Your task to perform on an android device: Open my contact list Image 0: 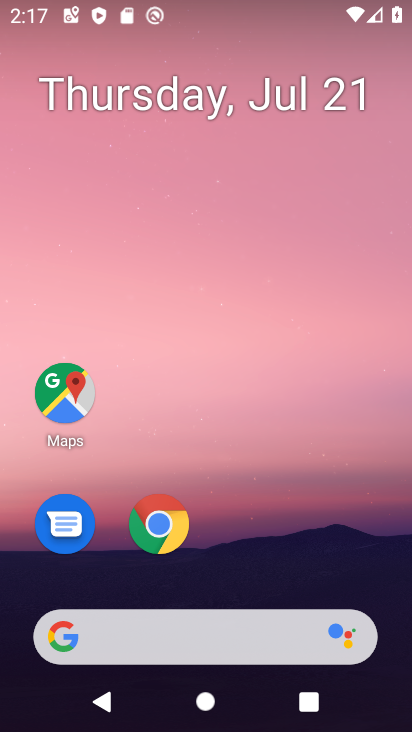
Step 0: drag from (294, 518) to (288, 34)
Your task to perform on an android device: Open my contact list Image 1: 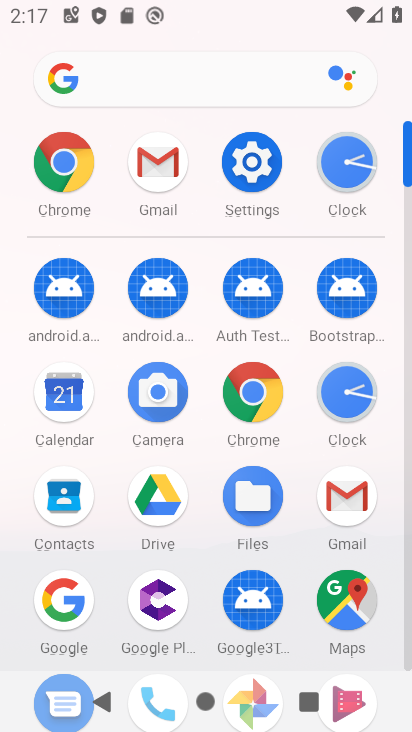
Step 1: click (56, 488)
Your task to perform on an android device: Open my contact list Image 2: 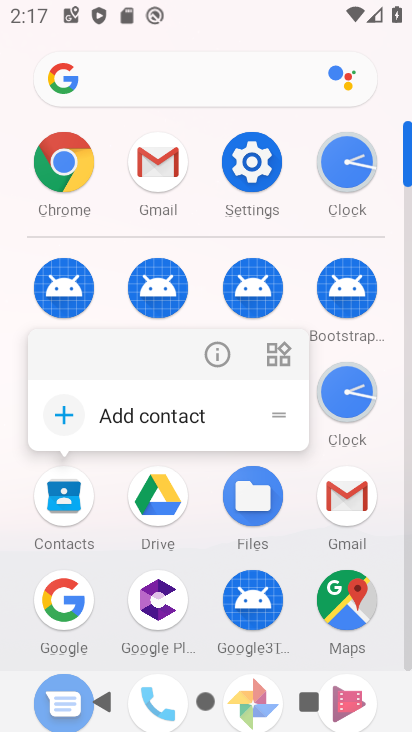
Step 2: click (80, 500)
Your task to perform on an android device: Open my contact list Image 3: 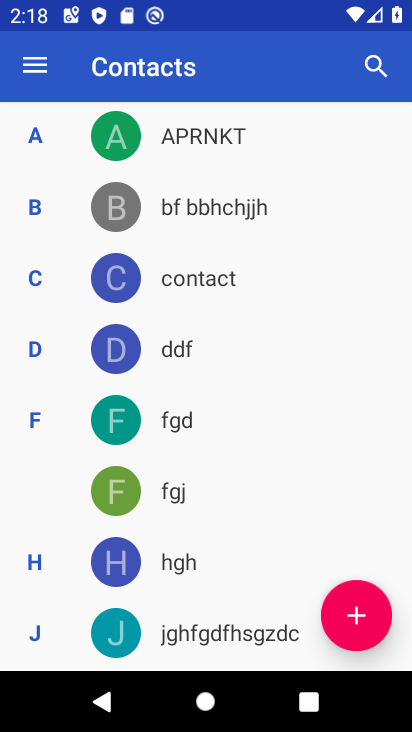
Step 3: task complete